Your task to perform on an android device: Open Chrome and go to settings Image 0: 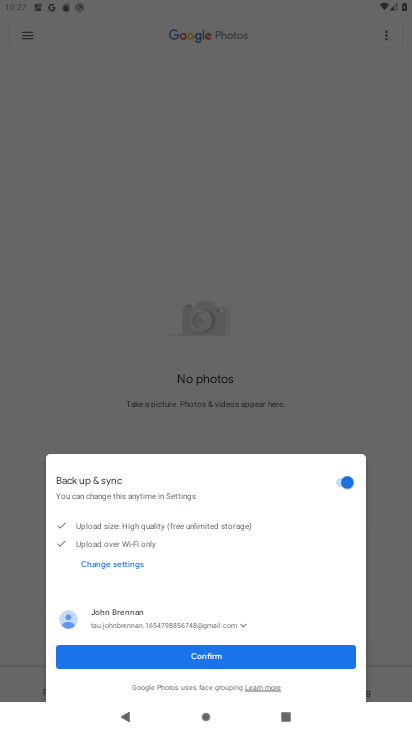
Step 0: press home button
Your task to perform on an android device: Open Chrome and go to settings Image 1: 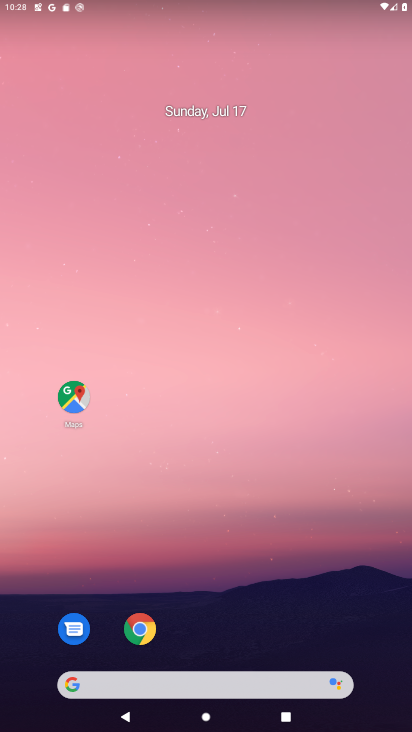
Step 1: click (141, 629)
Your task to perform on an android device: Open Chrome and go to settings Image 2: 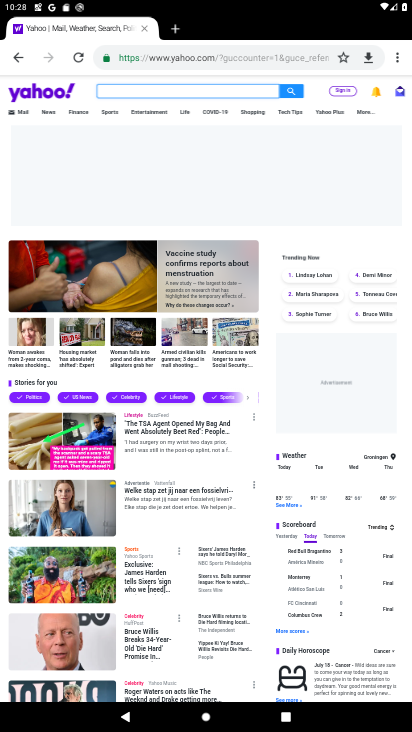
Step 2: click (398, 59)
Your task to perform on an android device: Open Chrome and go to settings Image 3: 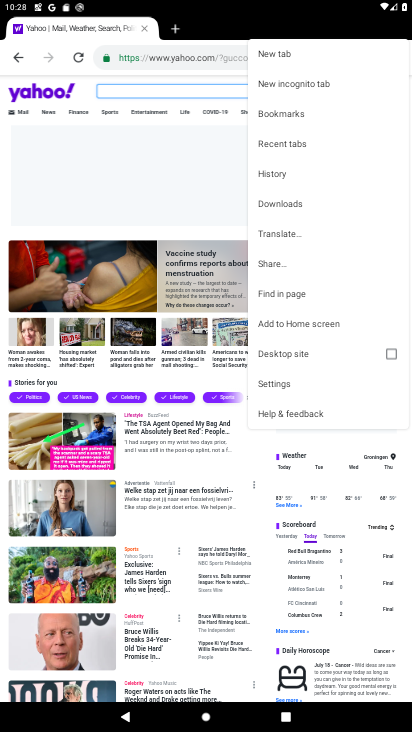
Step 3: click (270, 379)
Your task to perform on an android device: Open Chrome and go to settings Image 4: 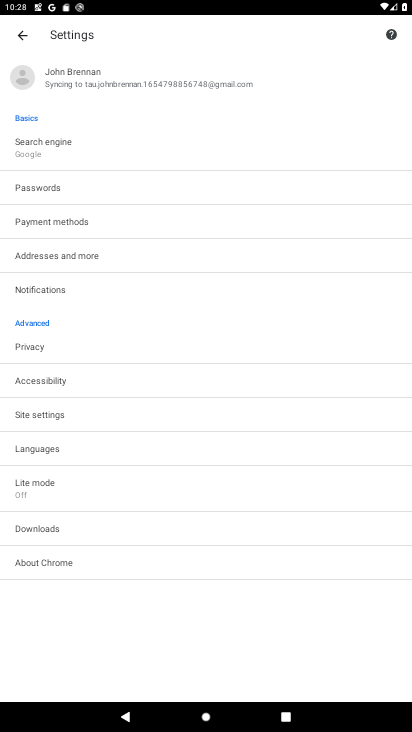
Step 4: task complete